Your task to perform on an android device: turn off sleep mode Image 0: 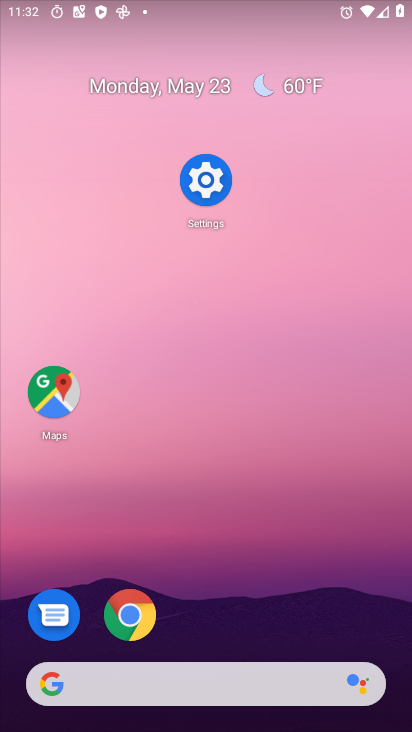
Step 0: click (206, 179)
Your task to perform on an android device: turn off sleep mode Image 1: 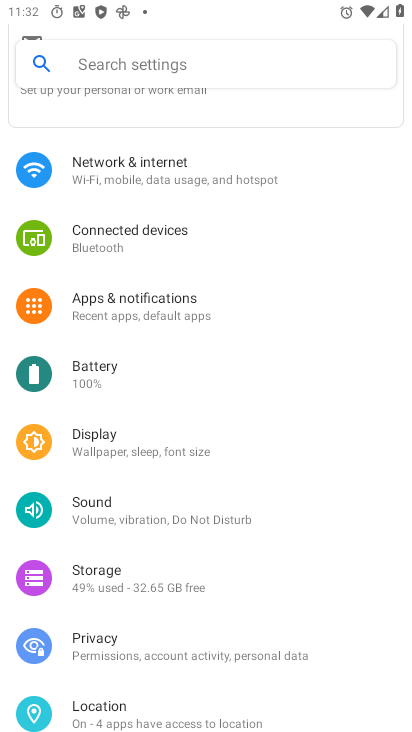
Step 1: click (169, 441)
Your task to perform on an android device: turn off sleep mode Image 2: 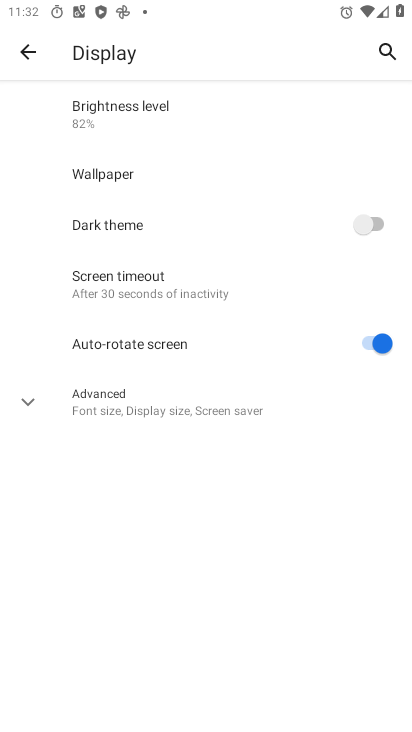
Step 2: click (147, 290)
Your task to perform on an android device: turn off sleep mode Image 3: 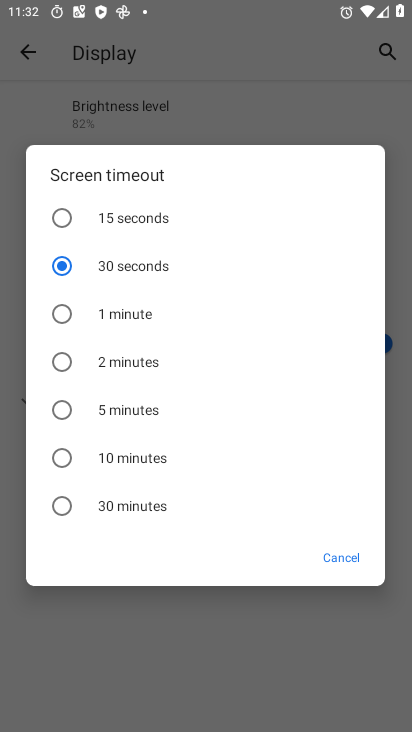
Step 3: task complete